Your task to perform on an android device: Clear the cart on target.com. Search for razer naga on target.com, select the first entry, and add it to the cart. Image 0: 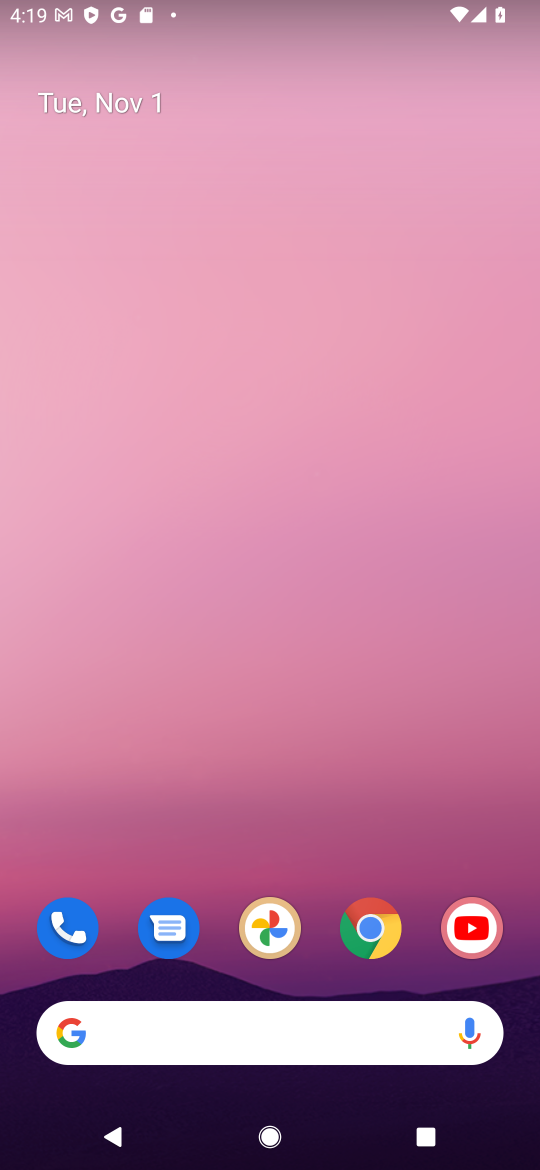
Step 0: click (363, 934)
Your task to perform on an android device: Clear the cart on target.com. Search for razer naga on target.com, select the first entry, and add it to the cart. Image 1: 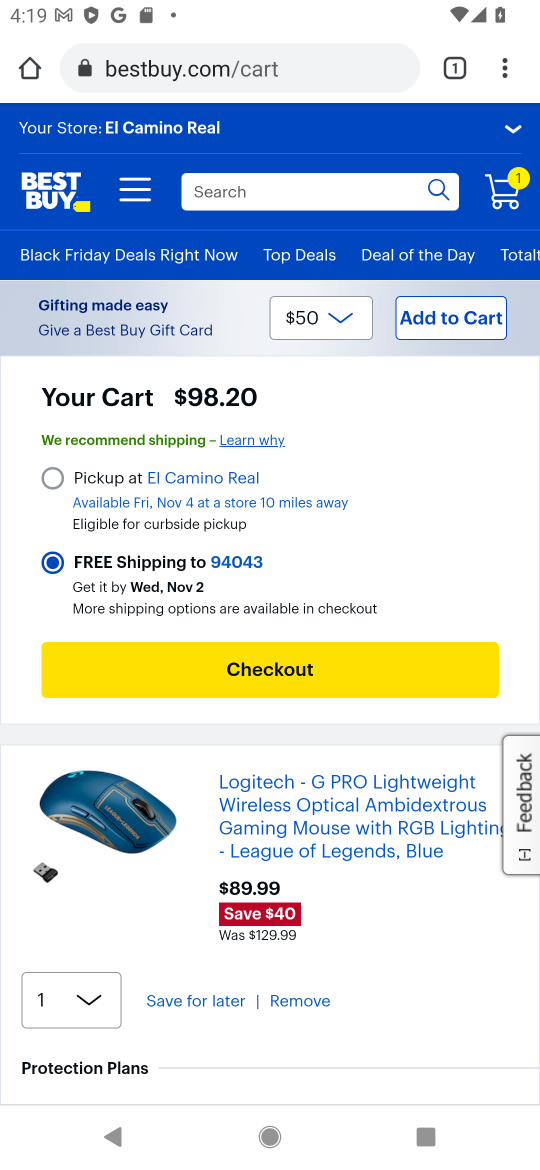
Step 1: click (235, 66)
Your task to perform on an android device: Clear the cart on target.com. Search for razer naga on target.com, select the first entry, and add it to the cart. Image 2: 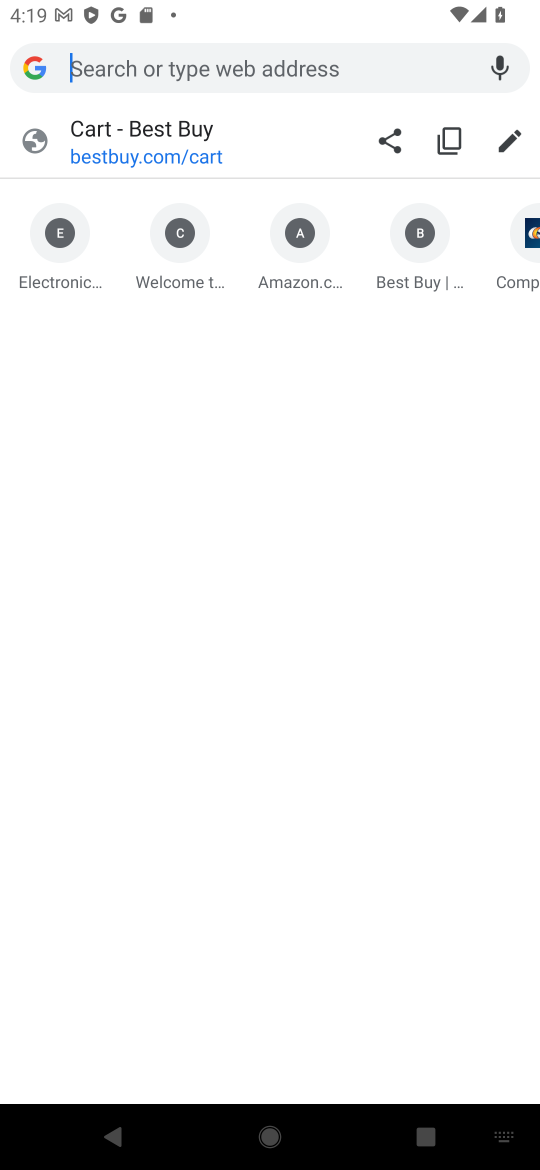
Step 2: type "target.com"
Your task to perform on an android device: Clear the cart on target.com. Search for razer naga on target.com, select the first entry, and add it to the cart. Image 3: 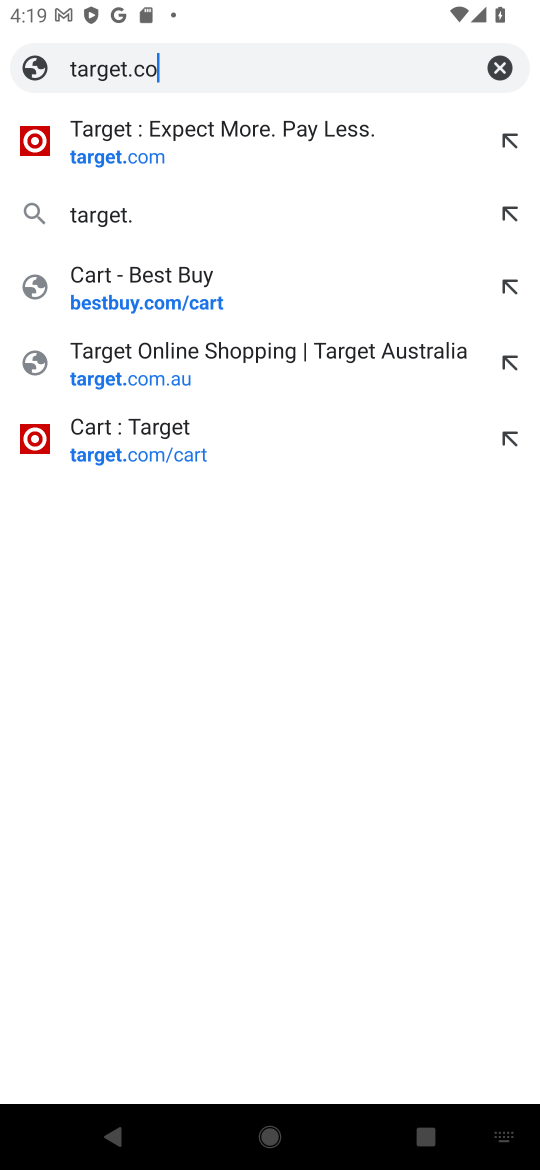
Step 3: type ""
Your task to perform on an android device: Clear the cart on target.com. Search for razer naga on target.com, select the first entry, and add it to the cart. Image 4: 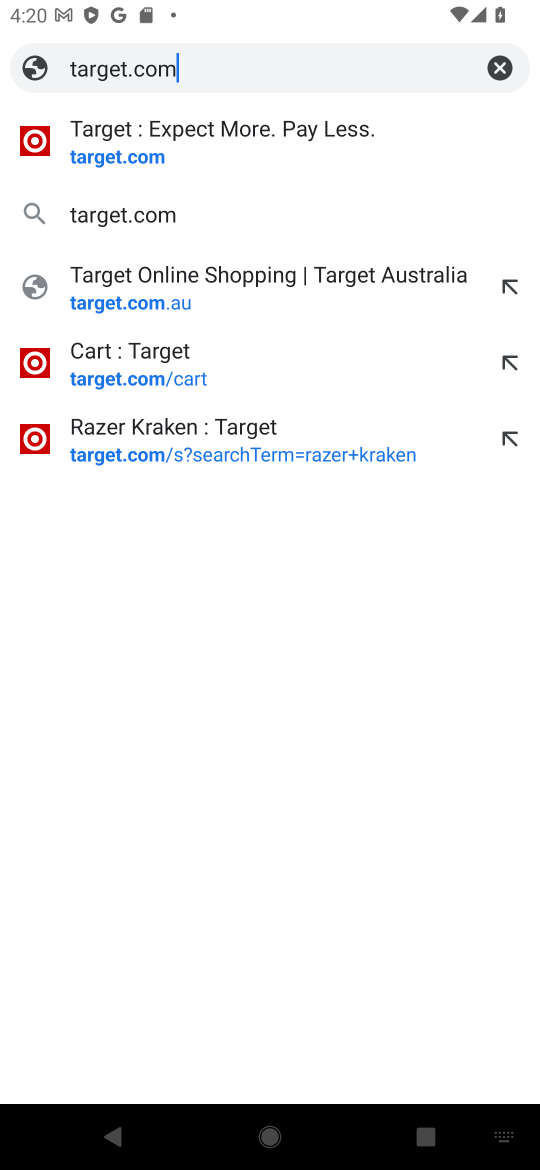
Step 4: press enter
Your task to perform on an android device: Clear the cart on target.com. Search for razer naga on target.com, select the first entry, and add it to the cart. Image 5: 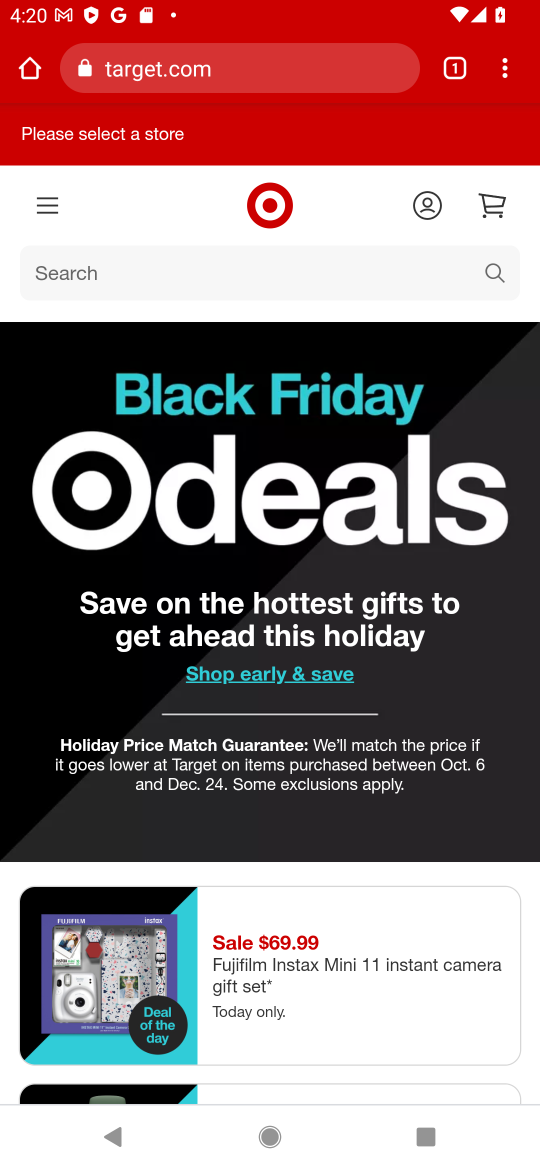
Step 5: click (307, 262)
Your task to perform on an android device: Clear the cart on target.com. Search for razer naga on target.com, select the first entry, and add it to the cart. Image 6: 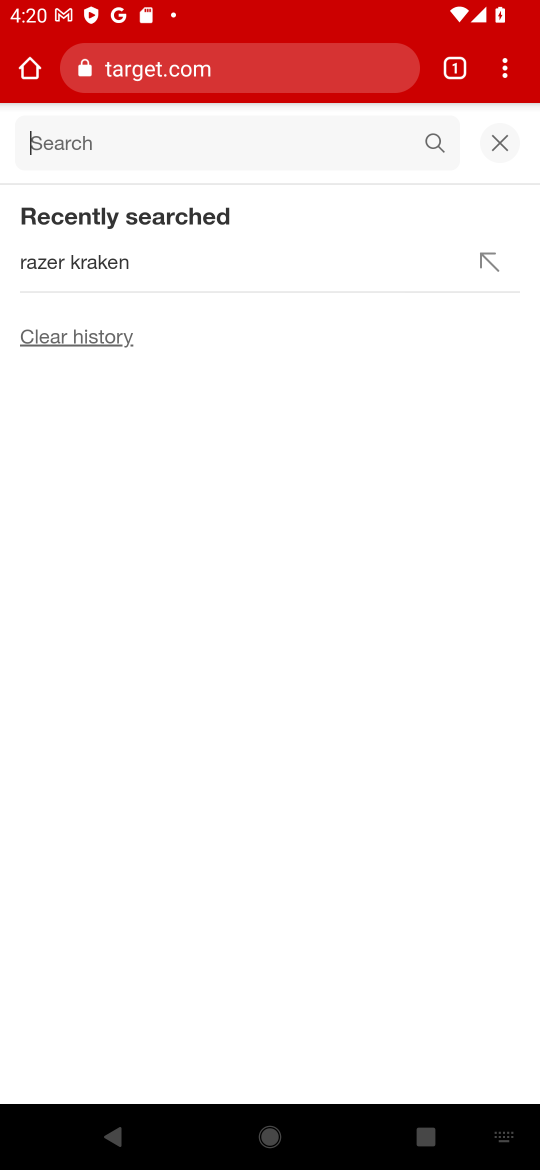
Step 6: click (505, 136)
Your task to perform on an android device: Clear the cart on target.com. Search for razer naga on target.com, select the first entry, and add it to the cart. Image 7: 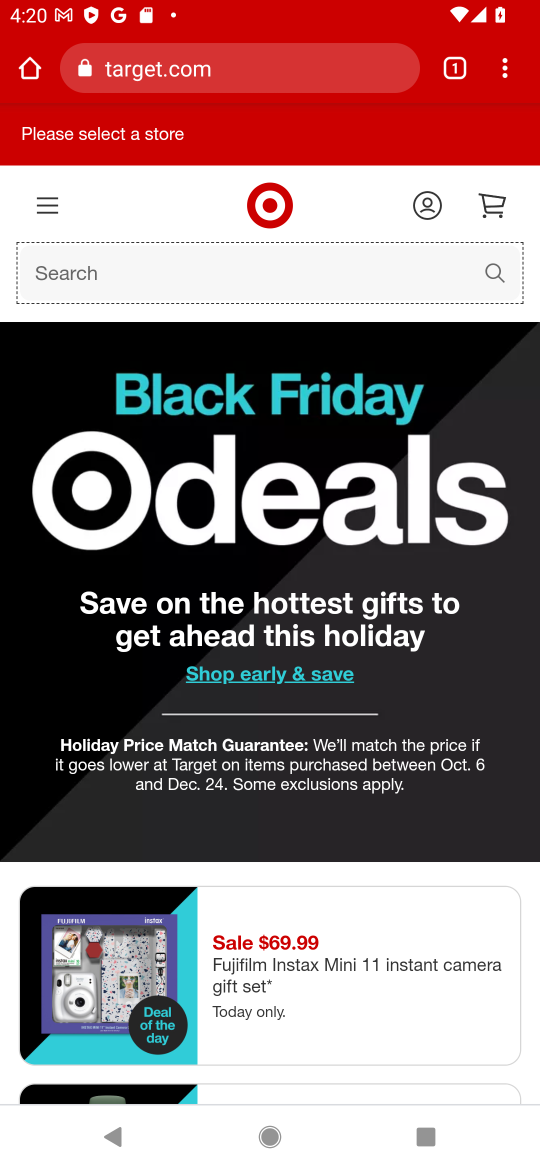
Step 7: click (488, 200)
Your task to perform on an android device: Clear the cart on target.com. Search for razer naga on target.com, select the first entry, and add it to the cart. Image 8: 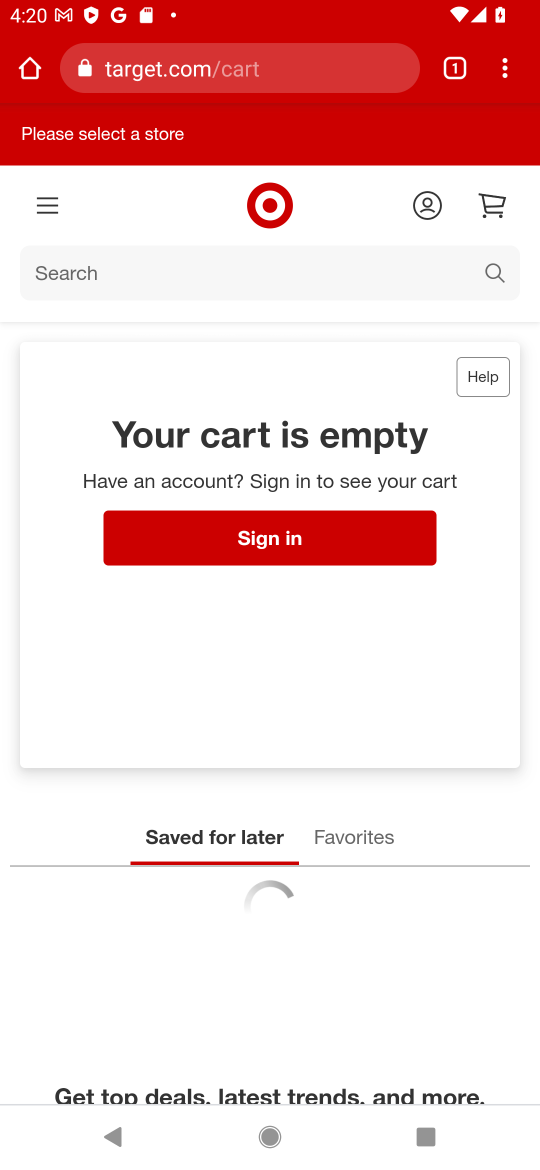
Step 8: click (188, 278)
Your task to perform on an android device: Clear the cart on target.com. Search for razer naga on target.com, select the first entry, and add it to the cart. Image 9: 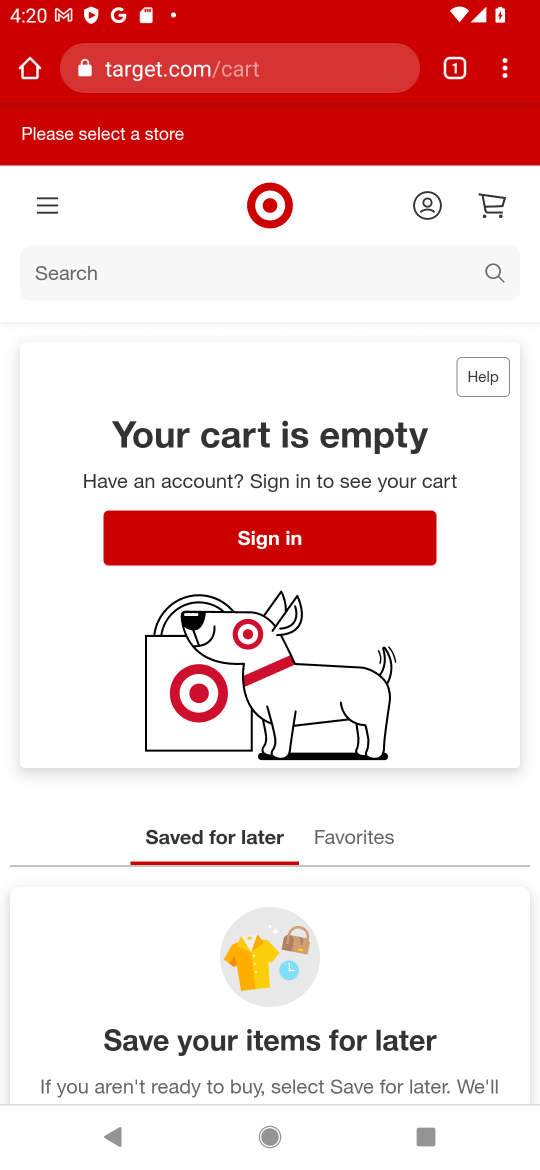
Step 9: type "razer naga"
Your task to perform on an android device: Clear the cart on target.com. Search for razer naga on target.com, select the first entry, and add it to the cart. Image 10: 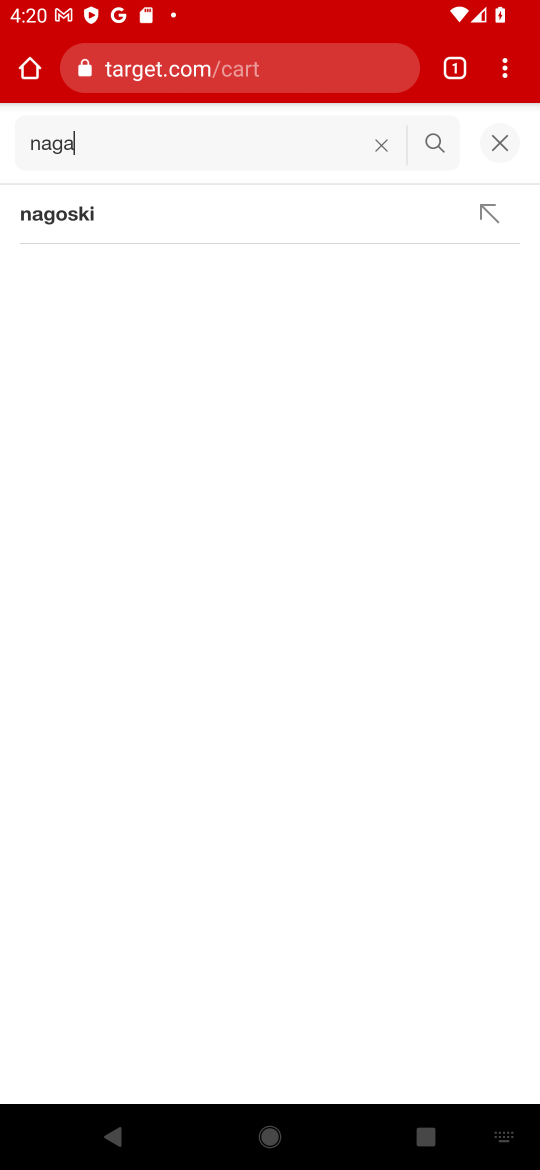
Step 10: click (378, 139)
Your task to perform on an android device: Clear the cart on target.com. Search for razer naga on target.com, select the first entry, and add it to the cart. Image 11: 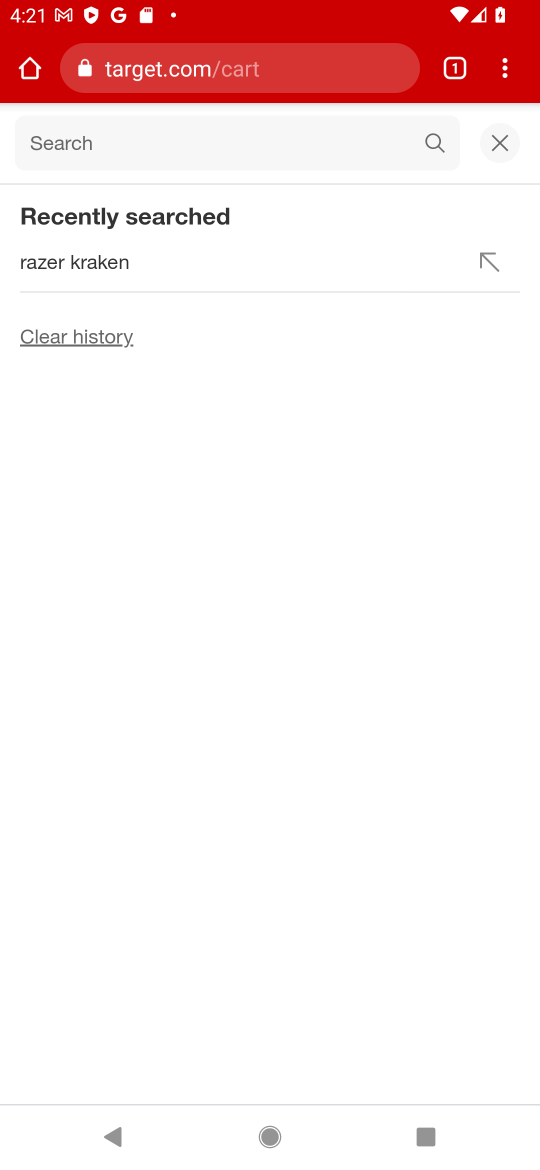
Step 11: click (102, 147)
Your task to perform on an android device: Clear the cart on target.com. Search for razer naga on target.com, select the first entry, and add it to the cart. Image 12: 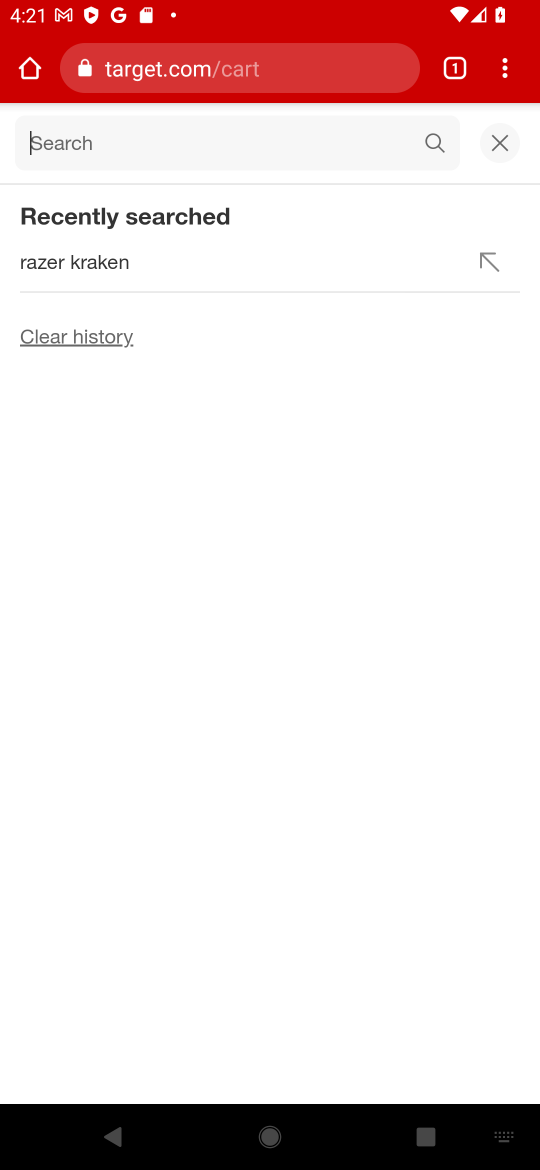
Step 12: type "razer naga"
Your task to perform on an android device: Clear the cart on target.com. Search for razer naga on target.com, select the first entry, and add it to the cart. Image 13: 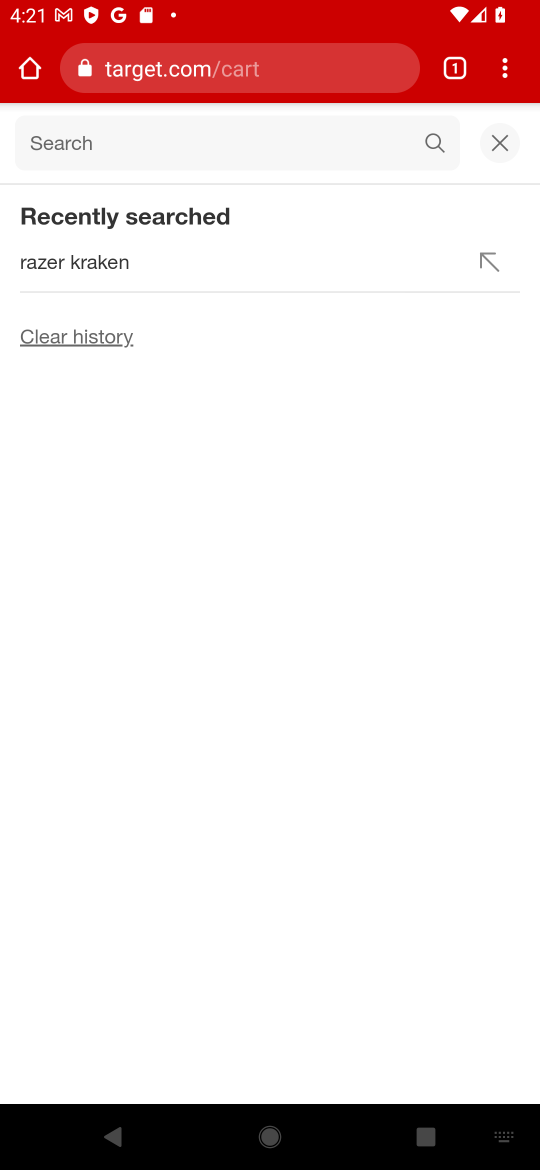
Step 13: type ""
Your task to perform on an android device: Clear the cart on target.com. Search for razer naga on target.com, select the first entry, and add it to the cart. Image 14: 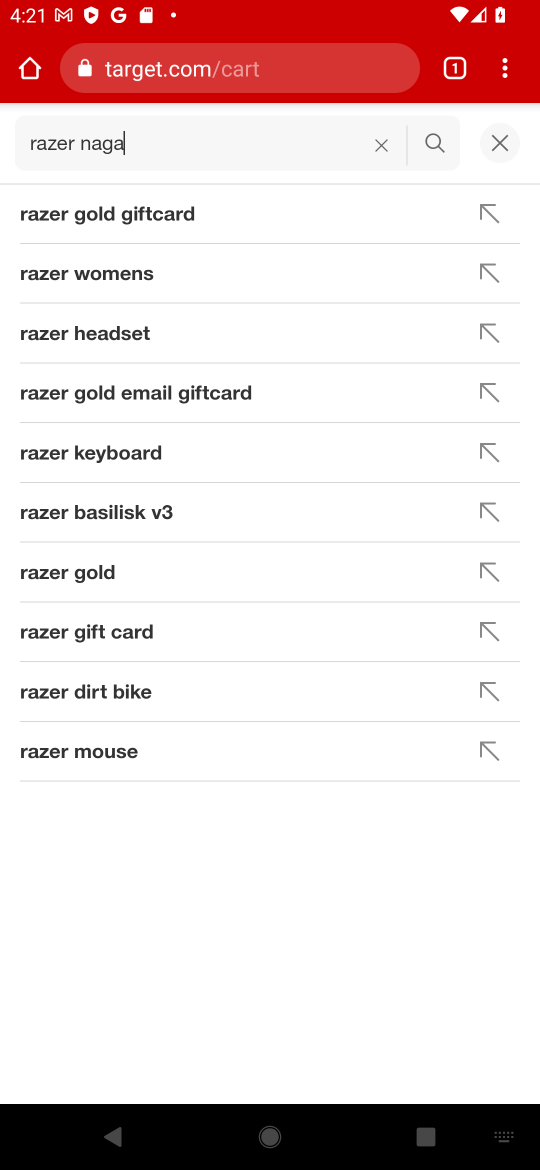
Step 14: press enter
Your task to perform on an android device: Clear the cart on target.com. Search for razer naga on target.com, select the first entry, and add it to the cart. Image 15: 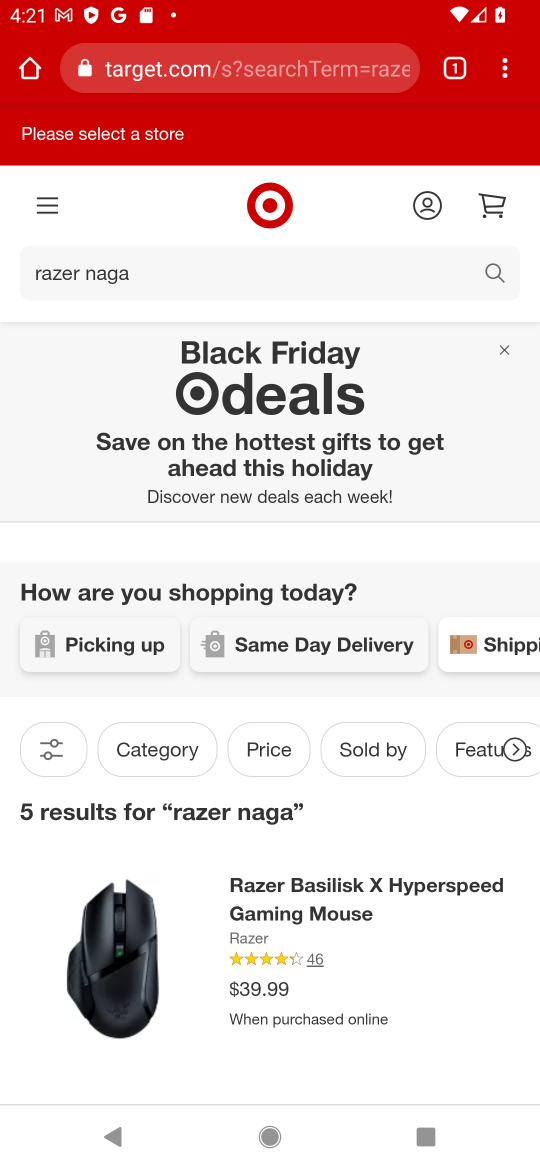
Step 15: task complete